Your task to perform on an android device: Find coffee shops on Maps Image 0: 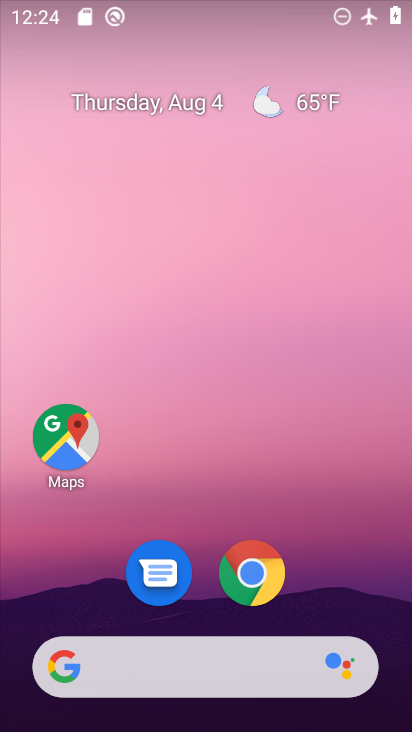
Step 0: drag from (342, 615) to (322, 101)
Your task to perform on an android device: Find coffee shops on Maps Image 1: 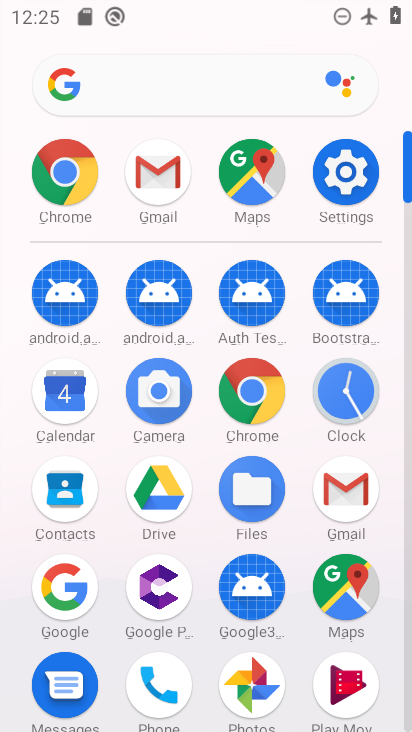
Step 1: click (345, 593)
Your task to perform on an android device: Find coffee shops on Maps Image 2: 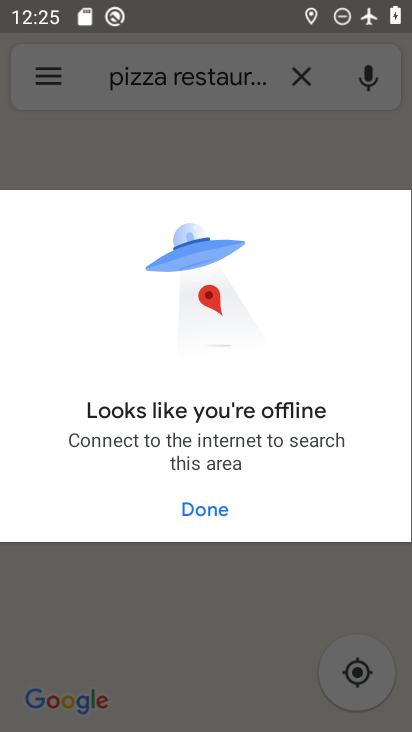
Step 2: click (201, 517)
Your task to perform on an android device: Find coffee shops on Maps Image 3: 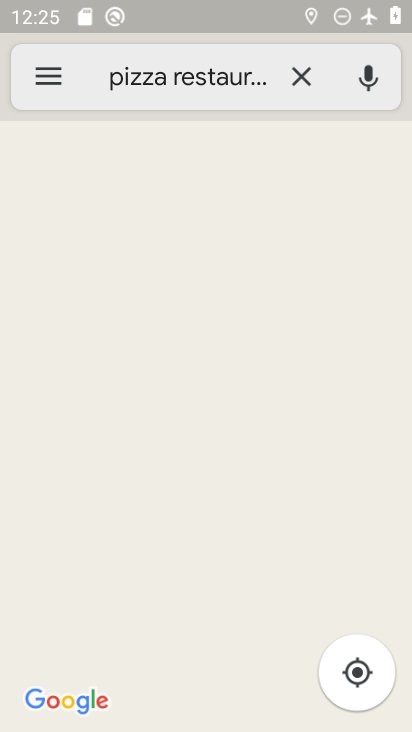
Step 3: click (235, 80)
Your task to perform on an android device: Find coffee shops on Maps Image 4: 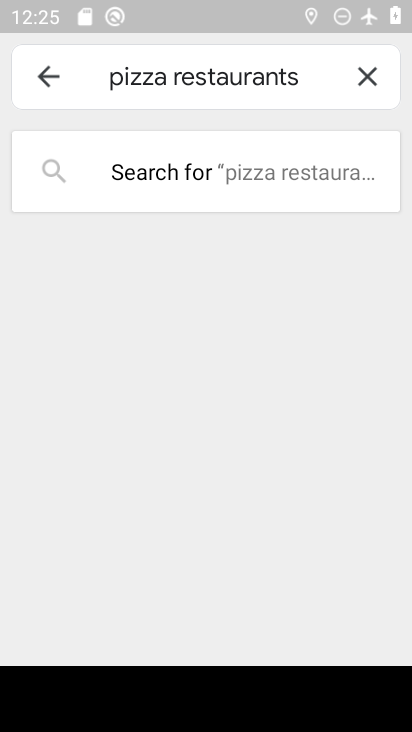
Step 4: click (375, 74)
Your task to perform on an android device: Find coffee shops on Maps Image 5: 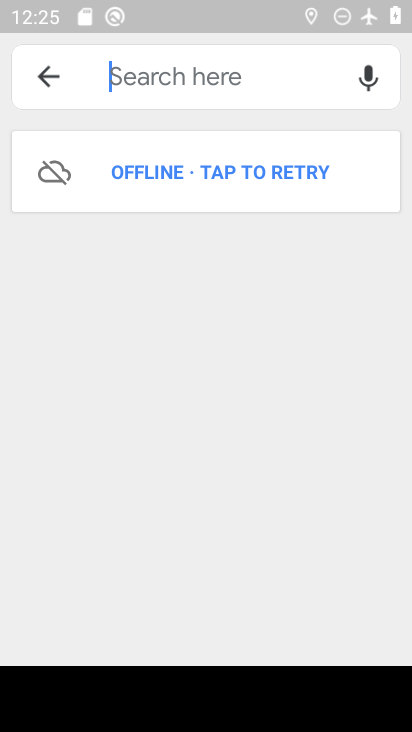
Step 5: type "coffee shops"
Your task to perform on an android device: Find coffee shops on Maps Image 6: 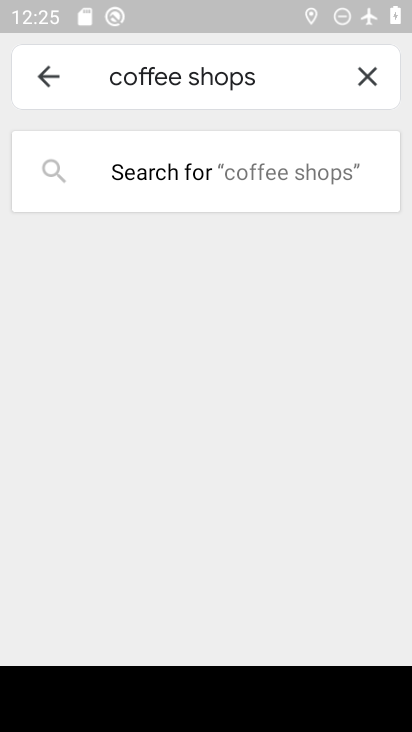
Step 6: press enter
Your task to perform on an android device: Find coffee shops on Maps Image 7: 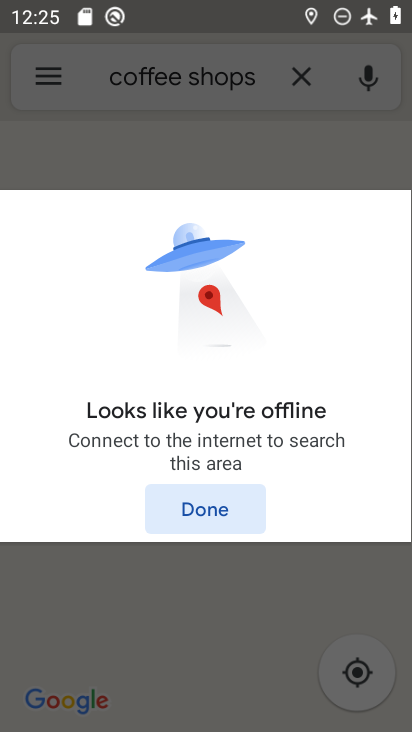
Step 7: task complete